Your task to perform on an android device: change the clock display to digital Image 0: 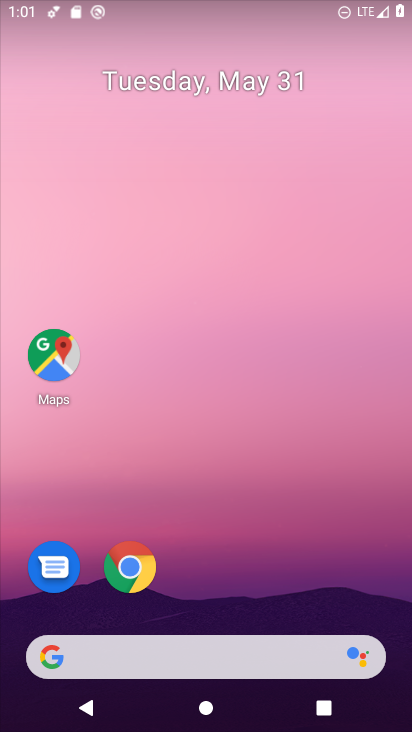
Step 0: drag from (210, 572) to (215, 222)
Your task to perform on an android device: change the clock display to digital Image 1: 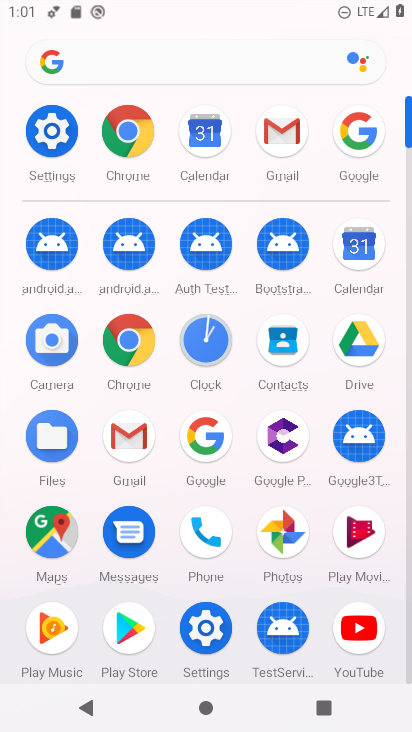
Step 1: click (208, 323)
Your task to perform on an android device: change the clock display to digital Image 2: 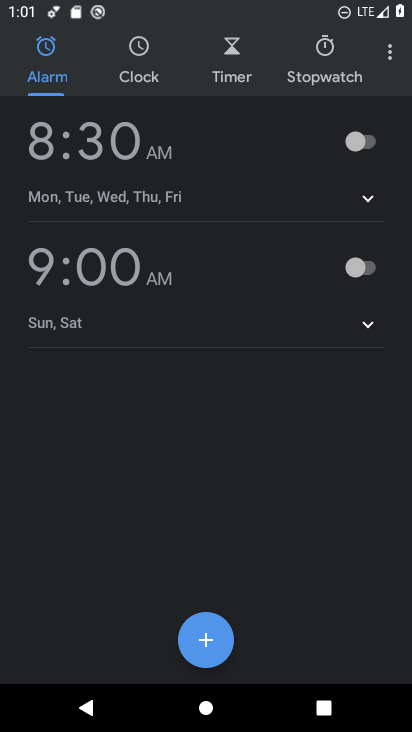
Step 2: click (379, 61)
Your task to perform on an android device: change the clock display to digital Image 3: 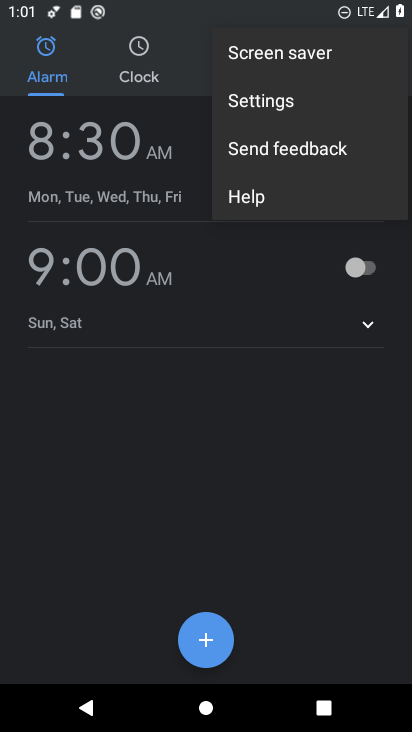
Step 3: click (292, 89)
Your task to perform on an android device: change the clock display to digital Image 4: 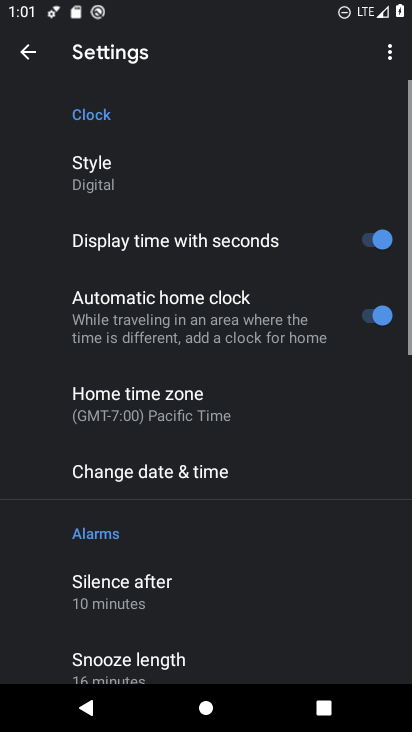
Step 4: click (133, 156)
Your task to perform on an android device: change the clock display to digital Image 5: 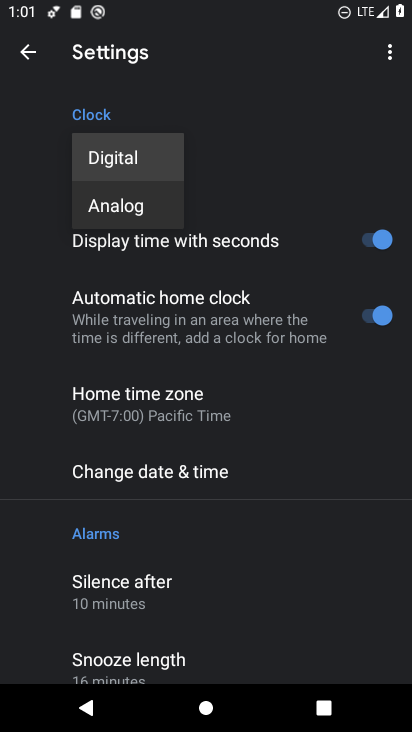
Step 5: task complete